Your task to perform on an android device: Open my contact list Image 0: 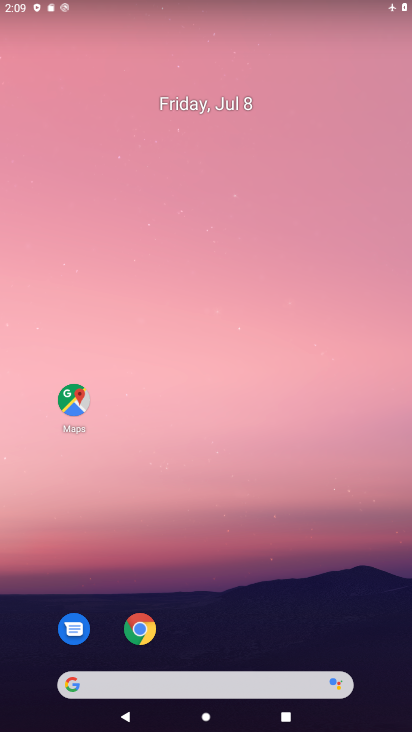
Step 0: drag from (64, 679) to (169, 90)
Your task to perform on an android device: Open my contact list Image 1: 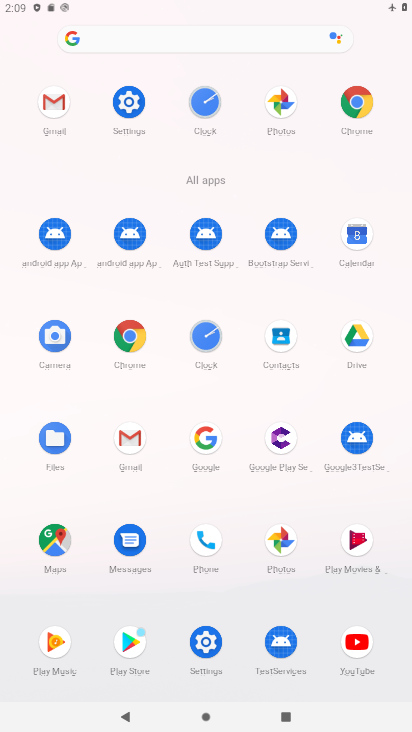
Step 1: click (201, 546)
Your task to perform on an android device: Open my contact list Image 2: 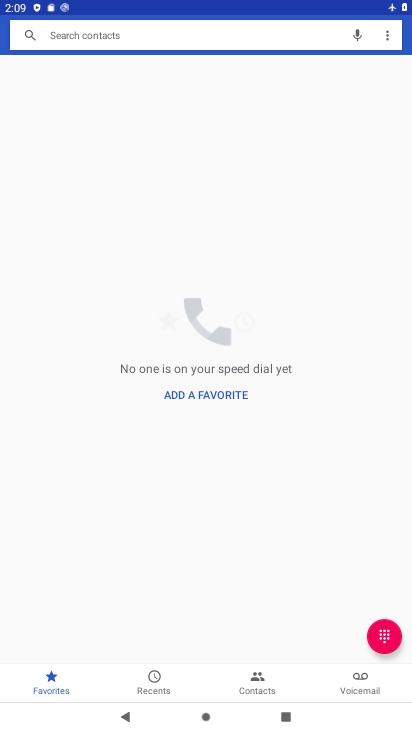
Step 2: click (267, 678)
Your task to perform on an android device: Open my contact list Image 3: 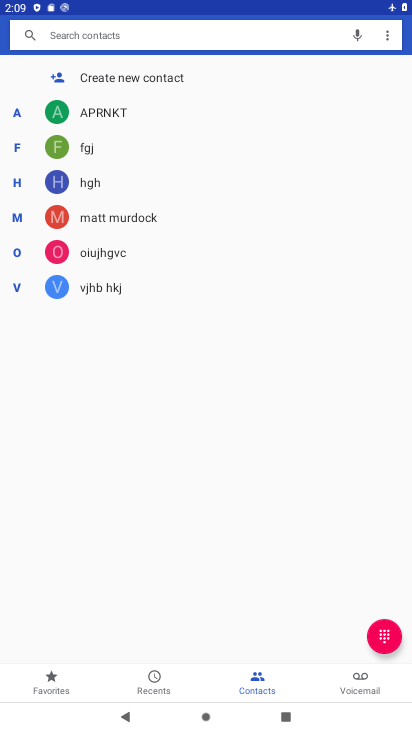
Step 3: task complete